Your task to perform on an android device: open app "Adobe Express: Graphic Design" (install if not already installed) and enter user name: "deliveries@gmail.com" and password: "regimentation" Image 0: 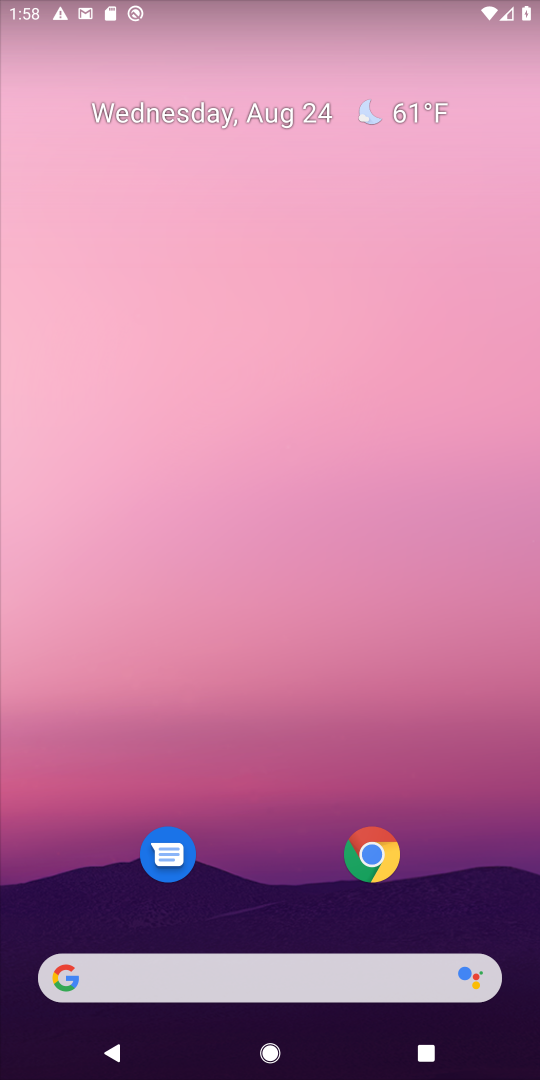
Step 0: press home button
Your task to perform on an android device: open app "Adobe Express: Graphic Design" (install if not already installed) and enter user name: "deliveries@gmail.com" and password: "regimentation" Image 1: 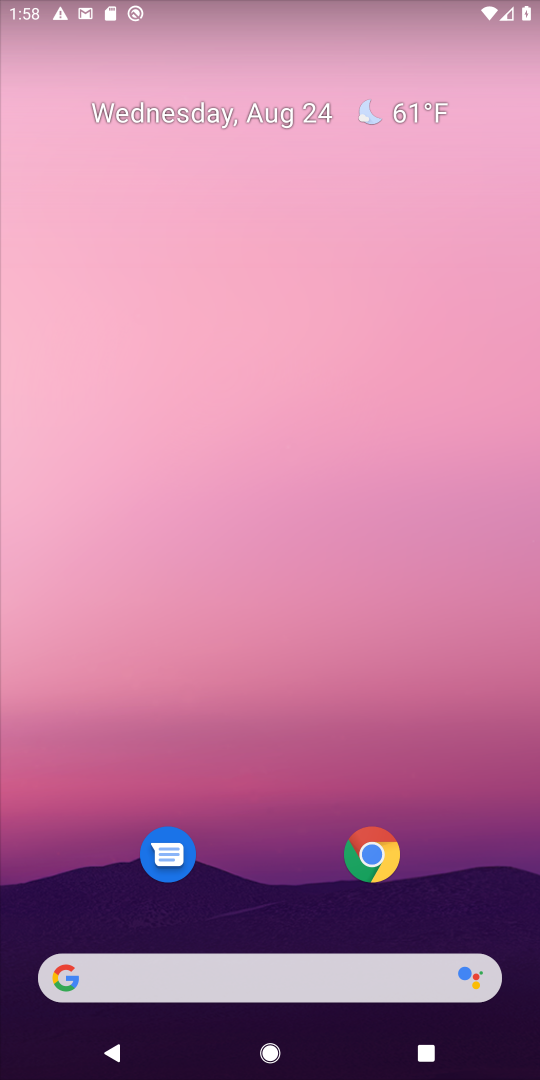
Step 1: drag from (462, 857) to (435, 134)
Your task to perform on an android device: open app "Adobe Express: Graphic Design" (install if not already installed) and enter user name: "deliveries@gmail.com" and password: "regimentation" Image 2: 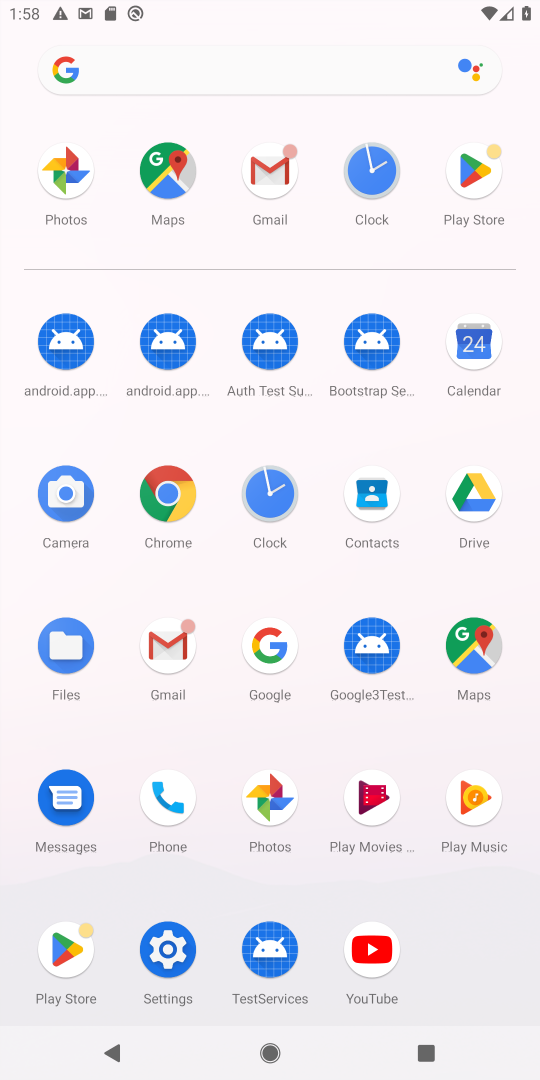
Step 2: click (472, 173)
Your task to perform on an android device: open app "Adobe Express: Graphic Design" (install if not already installed) and enter user name: "deliveries@gmail.com" and password: "regimentation" Image 3: 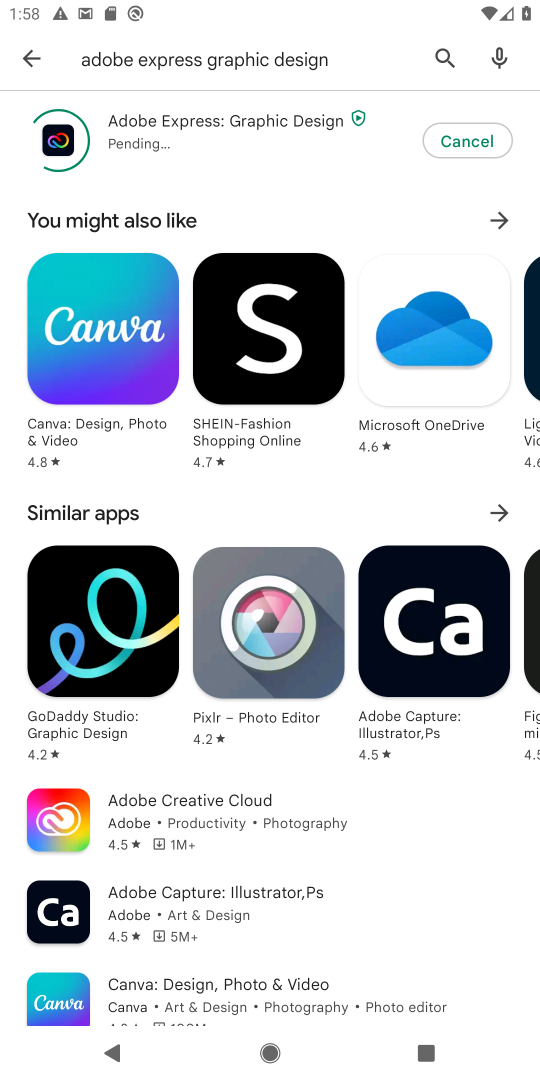
Step 3: press back button
Your task to perform on an android device: open app "Adobe Express: Graphic Design" (install if not already installed) and enter user name: "deliveries@gmail.com" and password: "regimentation" Image 4: 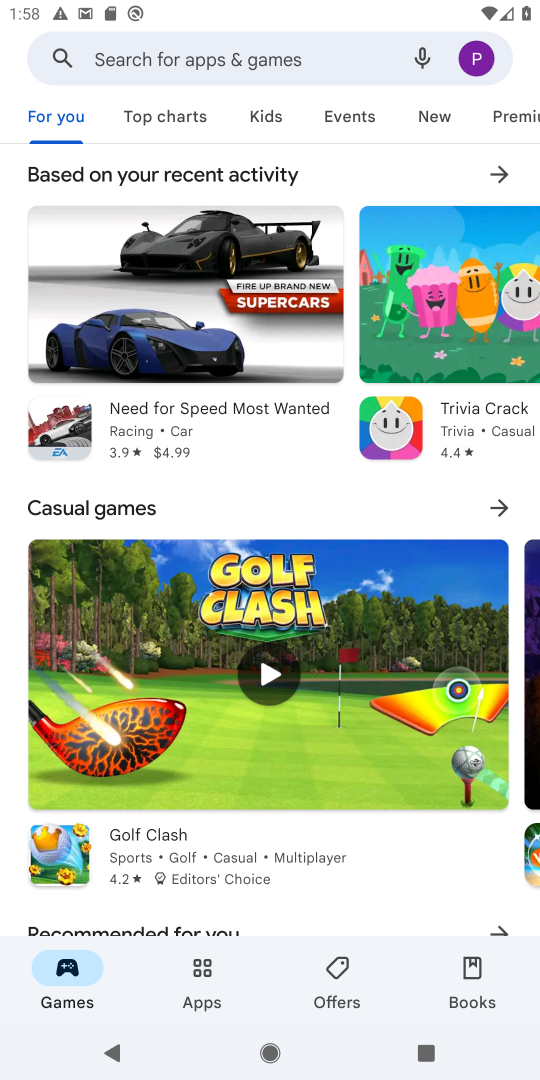
Step 4: click (183, 66)
Your task to perform on an android device: open app "Adobe Express: Graphic Design" (install if not already installed) and enter user name: "deliveries@gmail.com" and password: "regimentation" Image 5: 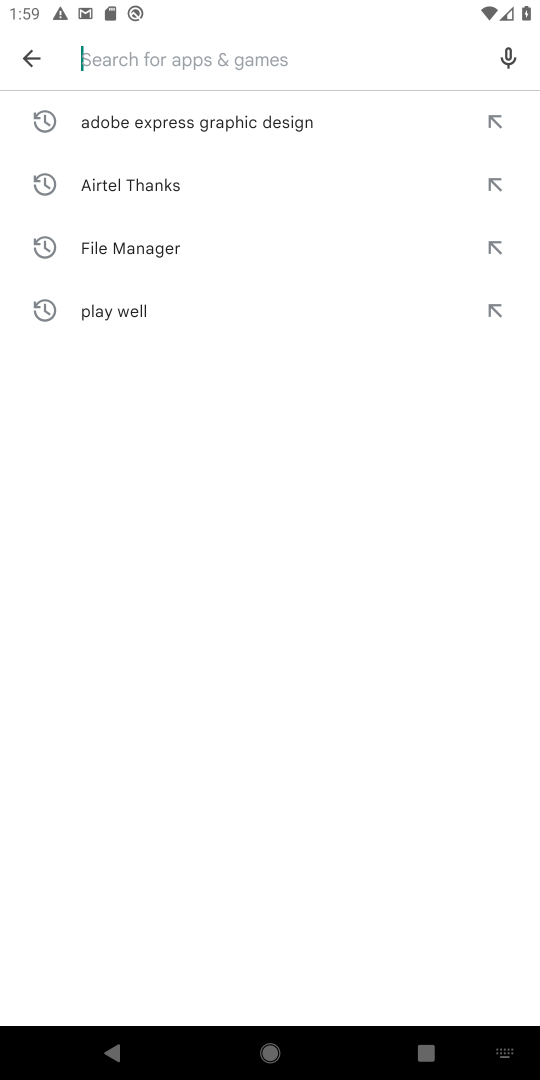
Step 5: type "Adobe Express: Graphic Design"
Your task to perform on an android device: open app "Adobe Express: Graphic Design" (install if not already installed) and enter user name: "deliveries@gmail.com" and password: "regimentation" Image 6: 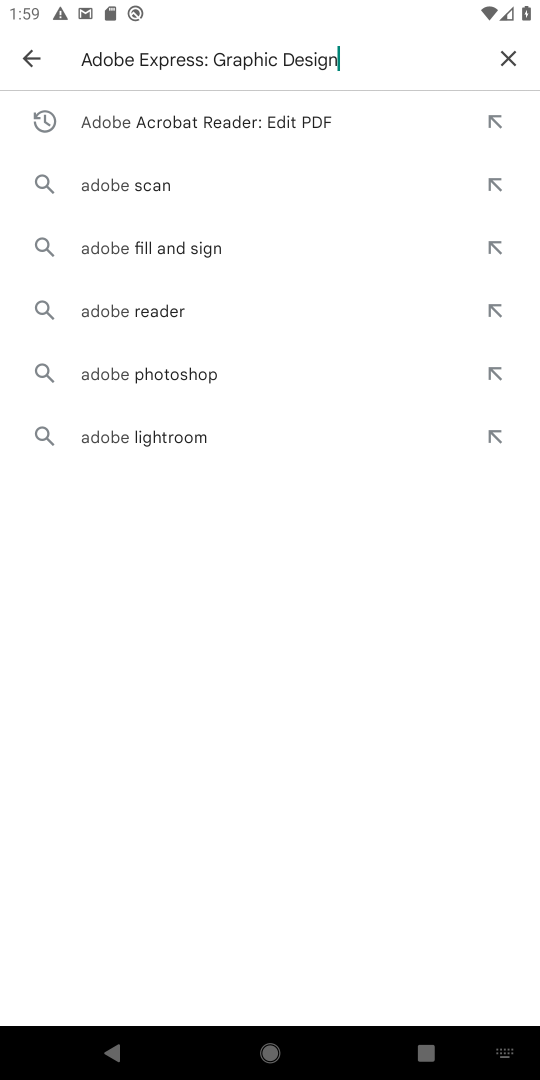
Step 6: press enter
Your task to perform on an android device: open app "Adobe Express: Graphic Design" (install if not already installed) and enter user name: "deliveries@gmail.com" and password: "regimentation" Image 7: 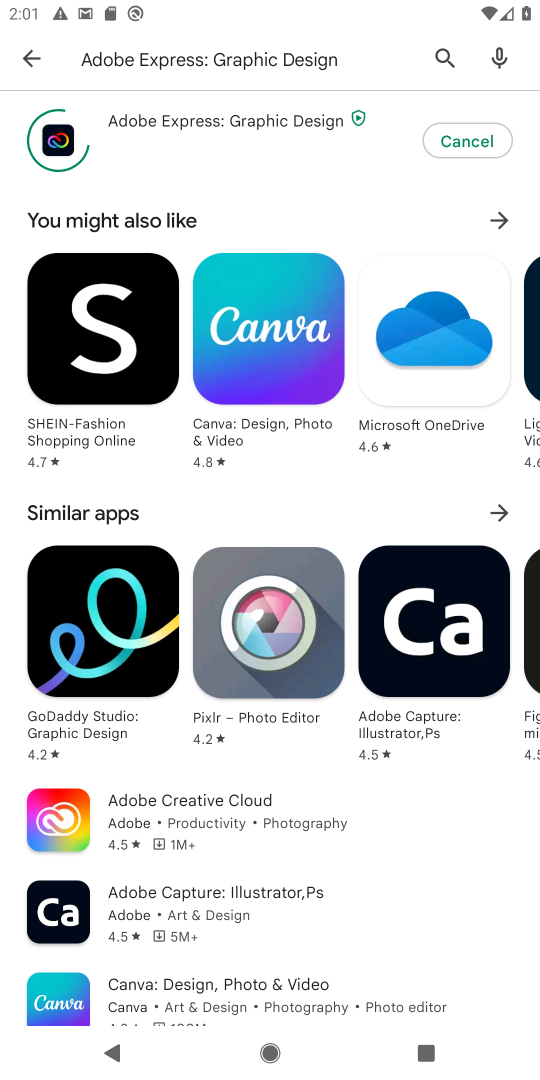
Step 7: task complete